Your task to perform on an android device: turn on airplane mode Image 0: 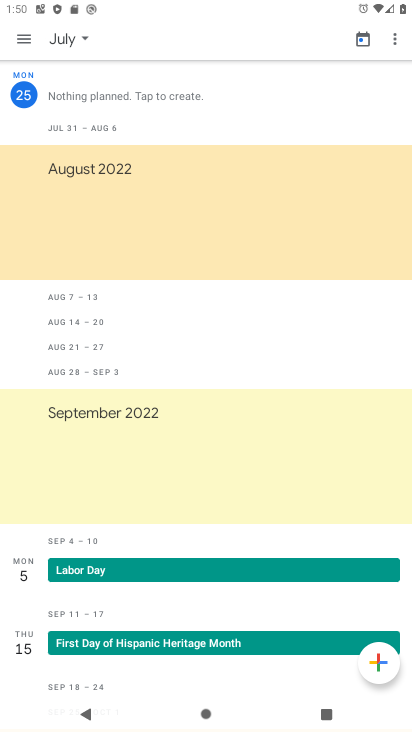
Step 0: press home button
Your task to perform on an android device: turn on airplane mode Image 1: 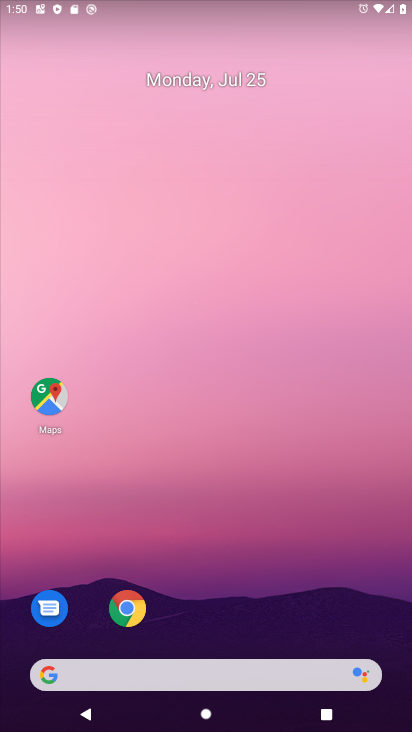
Step 1: drag from (264, 619) to (230, 60)
Your task to perform on an android device: turn on airplane mode Image 2: 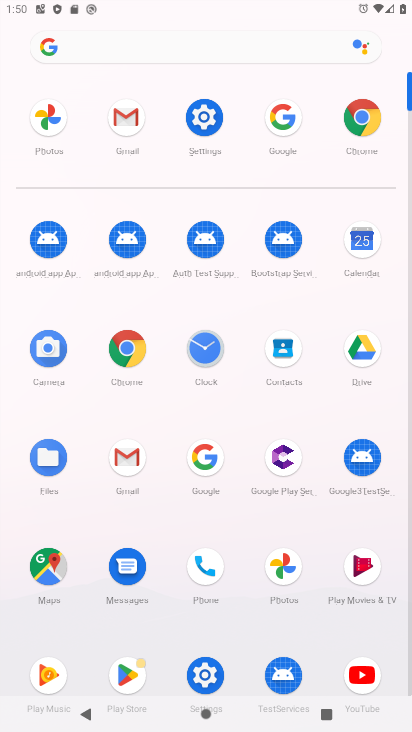
Step 2: click (211, 113)
Your task to perform on an android device: turn on airplane mode Image 3: 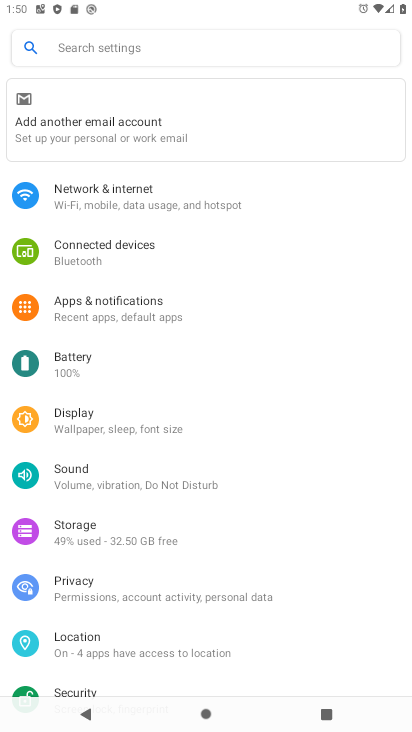
Step 3: click (145, 203)
Your task to perform on an android device: turn on airplane mode Image 4: 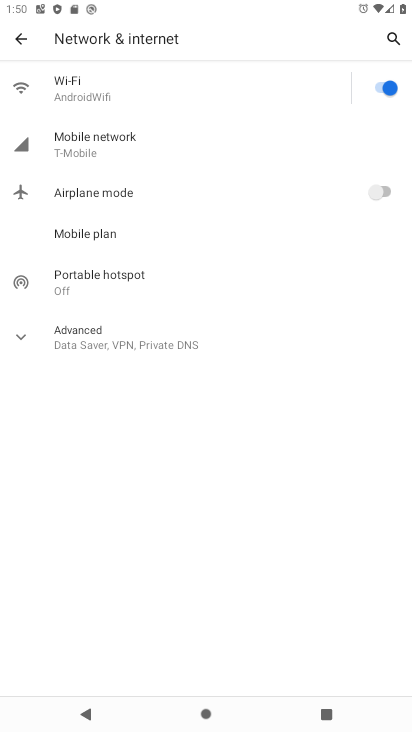
Step 4: click (388, 186)
Your task to perform on an android device: turn on airplane mode Image 5: 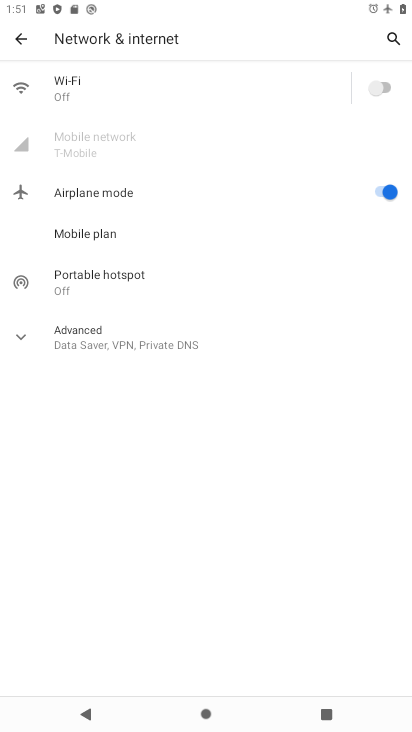
Step 5: task complete